Your task to perform on an android device: Go to battery settings Image 0: 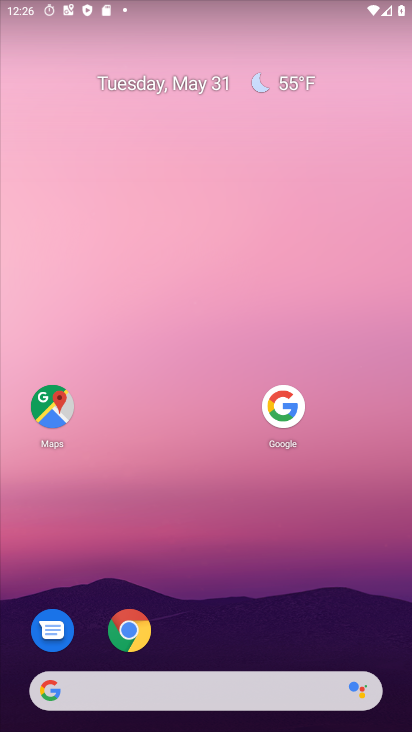
Step 0: press home button
Your task to perform on an android device: Go to battery settings Image 1: 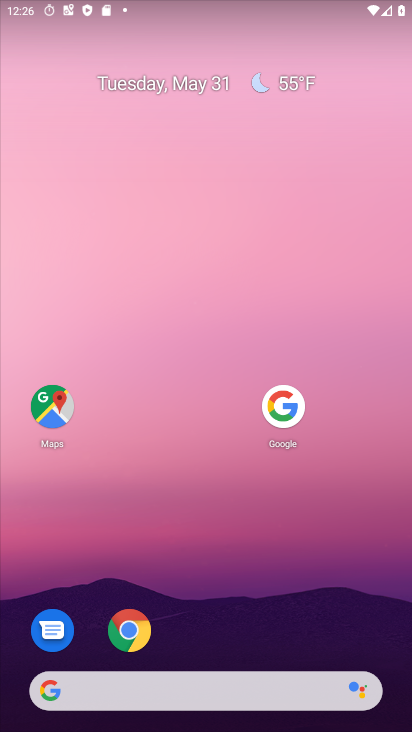
Step 1: drag from (207, 649) to (362, 7)
Your task to perform on an android device: Go to battery settings Image 2: 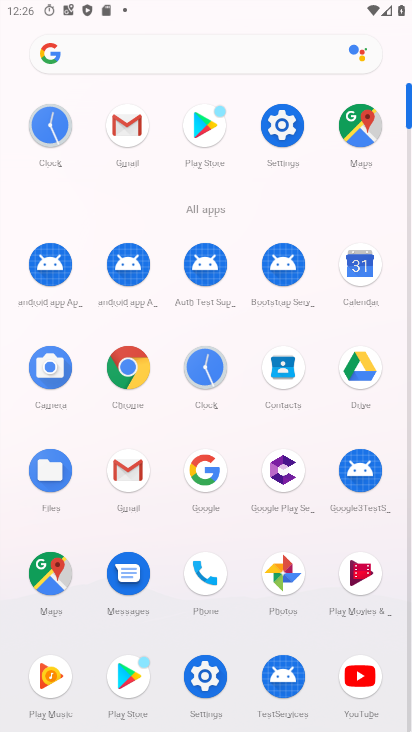
Step 2: click (271, 126)
Your task to perform on an android device: Go to battery settings Image 3: 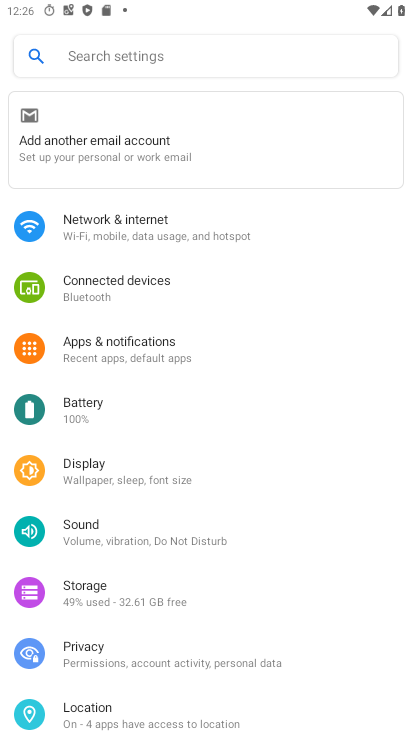
Step 3: click (92, 404)
Your task to perform on an android device: Go to battery settings Image 4: 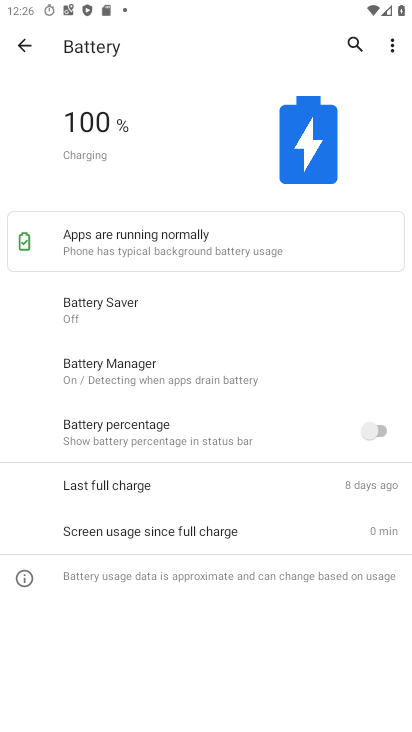
Step 4: task complete